Your task to perform on an android device: delete browsing data in the chrome app Image 0: 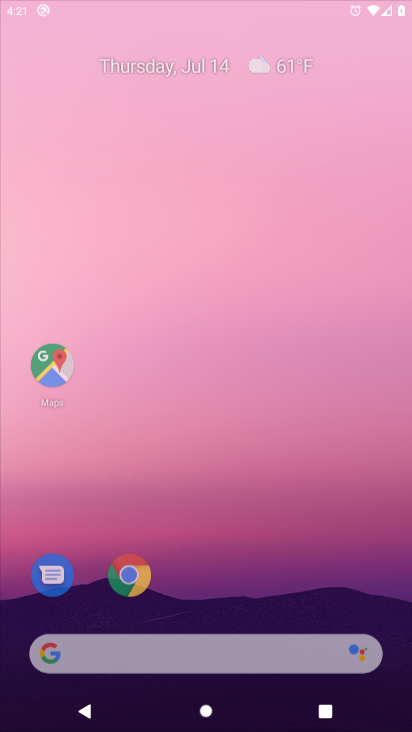
Step 0: press home button
Your task to perform on an android device: delete browsing data in the chrome app Image 1: 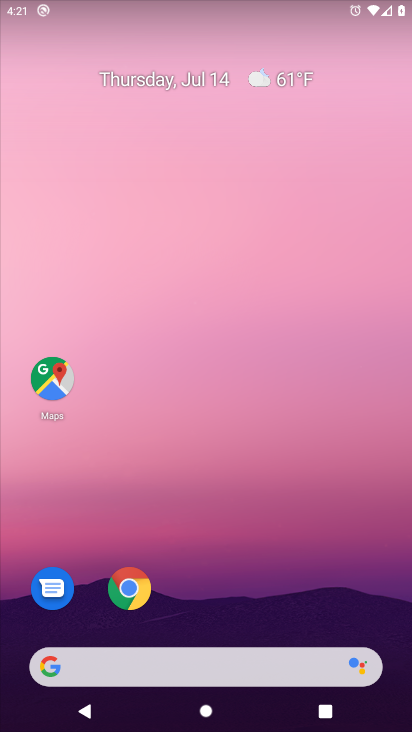
Step 1: drag from (215, 625) to (195, 32)
Your task to perform on an android device: delete browsing data in the chrome app Image 2: 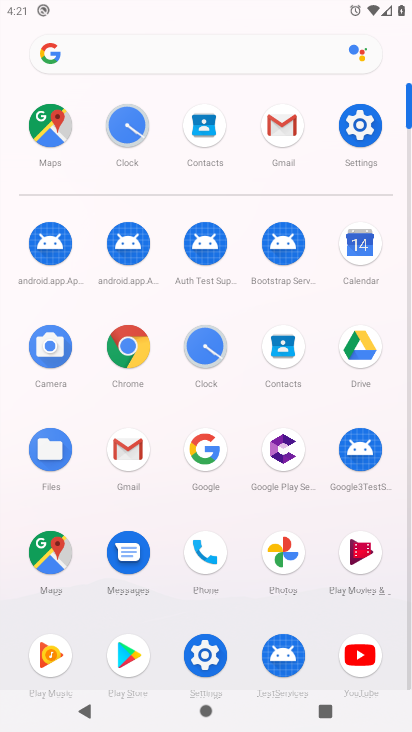
Step 2: click (127, 346)
Your task to perform on an android device: delete browsing data in the chrome app Image 3: 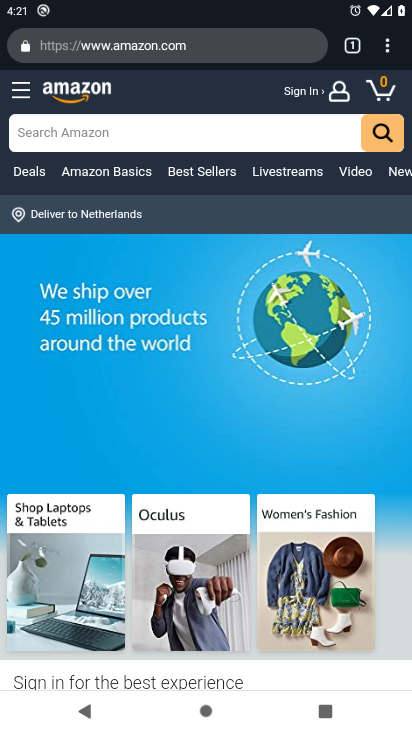
Step 3: drag from (387, 56) to (243, 539)
Your task to perform on an android device: delete browsing data in the chrome app Image 4: 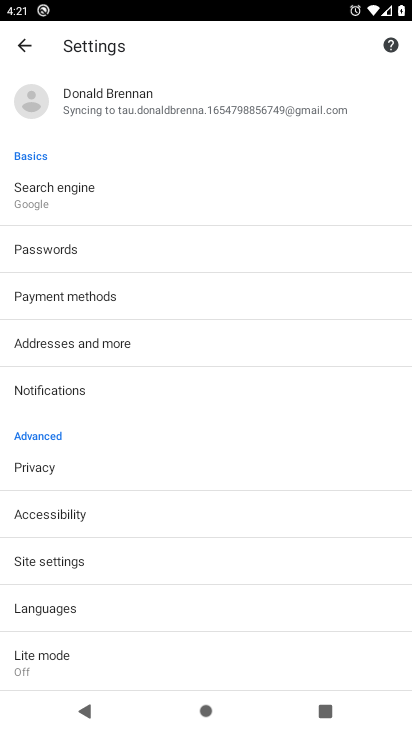
Step 4: click (39, 462)
Your task to perform on an android device: delete browsing data in the chrome app Image 5: 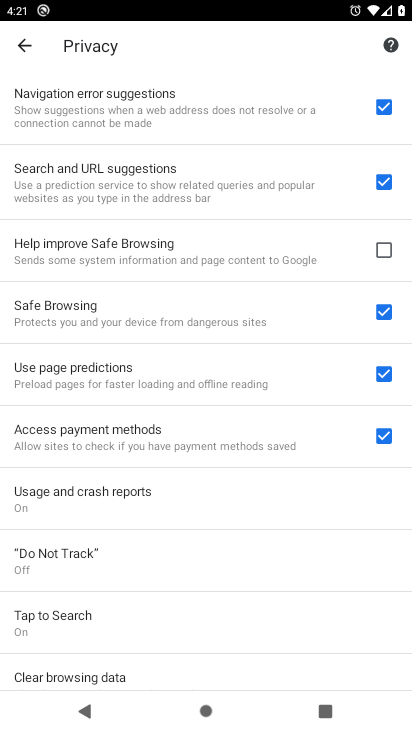
Step 5: click (69, 681)
Your task to perform on an android device: delete browsing data in the chrome app Image 6: 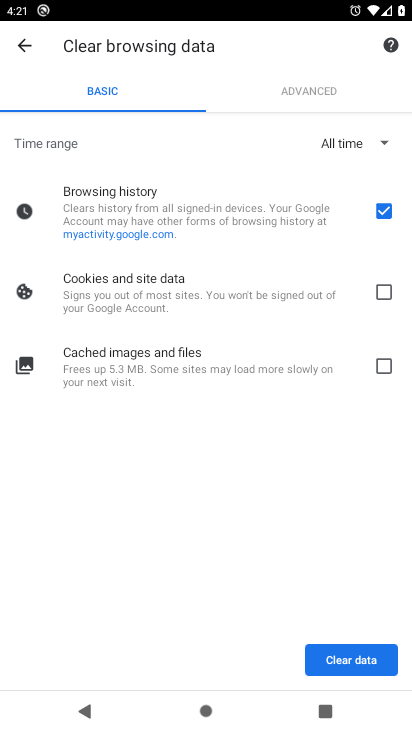
Step 6: click (388, 290)
Your task to perform on an android device: delete browsing data in the chrome app Image 7: 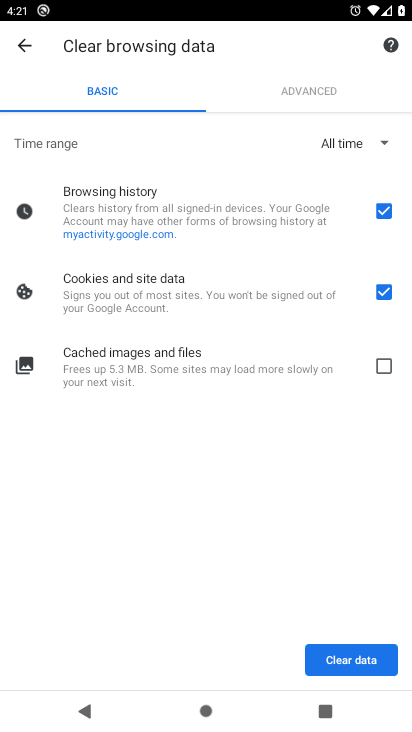
Step 7: click (384, 368)
Your task to perform on an android device: delete browsing data in the chrome app Image 8: 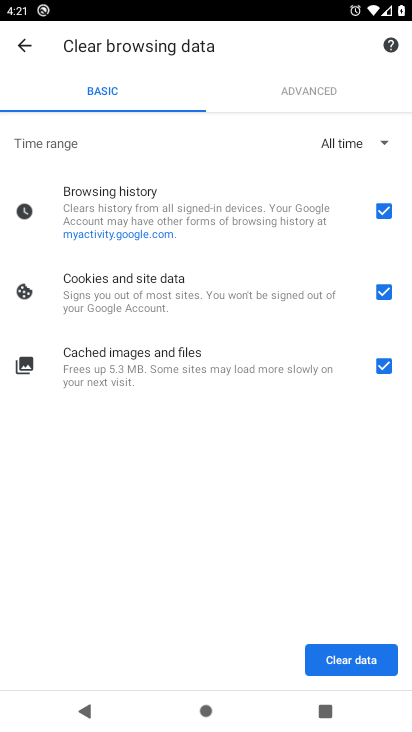
Step 8: click (318, 658)
Your task to perform on an android device: delete browsing data in the chrome app Image 9: 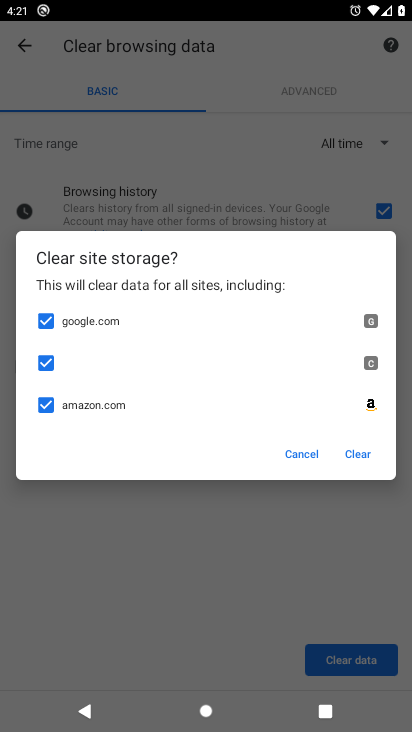
Step 9: click (354, 454)
Your task to perform on an android device: delete browsing data in the chrome app Image 10: 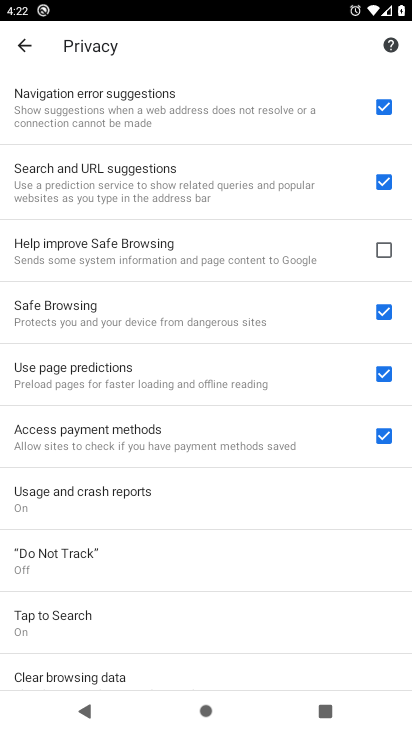
Step 10: task complete